Your task to perform on an android device: change the clock display to analog Image 0: 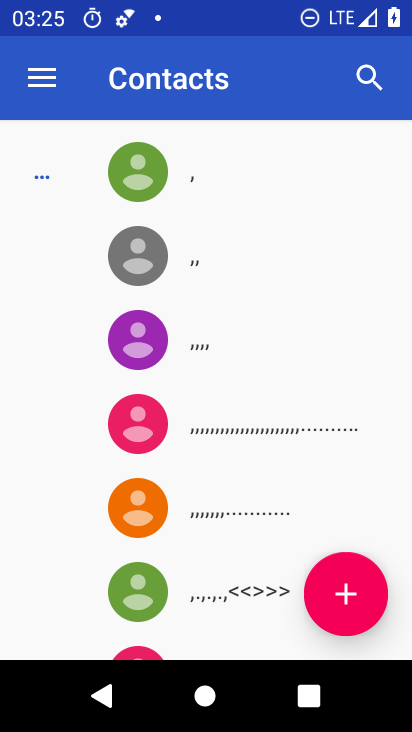
Step 0: press home button
Your task to perform on an android device: change the clock display to analog Image 1: 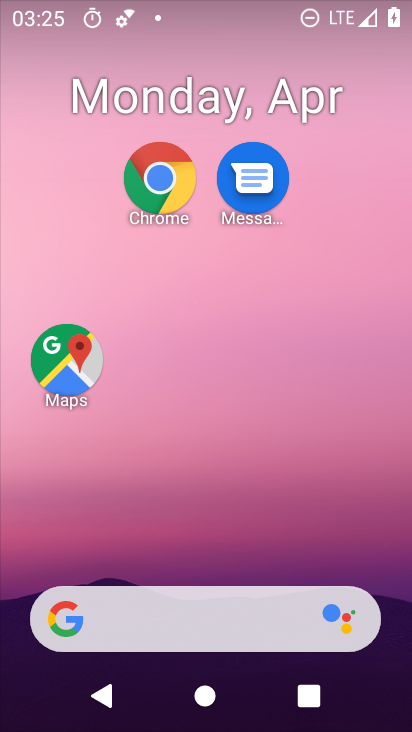
Step 1: drag from (251, 589) to (259, 41)
Your task to perform on an android device: change the clock display to analog Image 2: 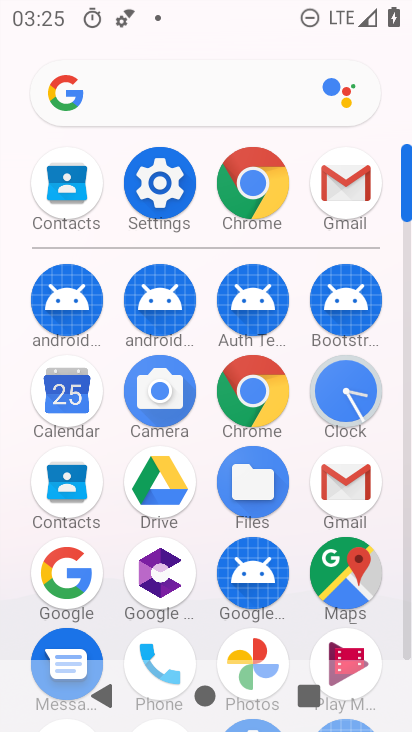
Step 2: click (347, 392)
Your task to perform on an android device: change the clock display to analog Image 3: 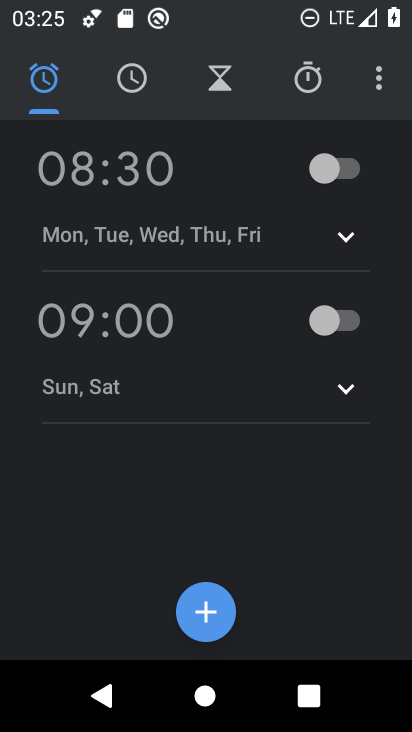
Step 3: click (370, 66)
Your task to perform on an android device: change the clock display to analog Image 4: 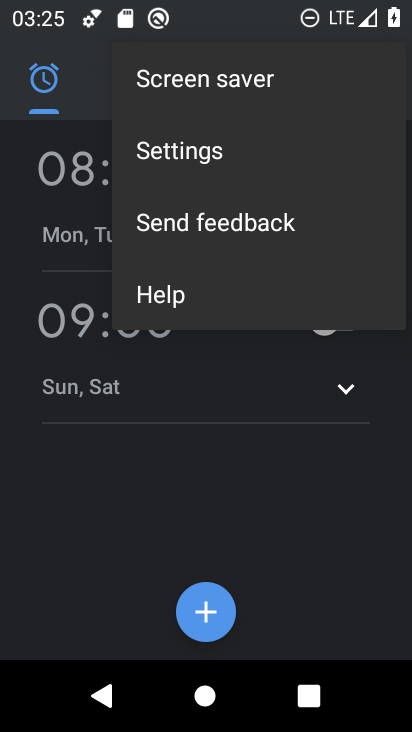
Step 4: click (229, 161)
Your task to perform on an android device: change the clock display to analog Image 5: 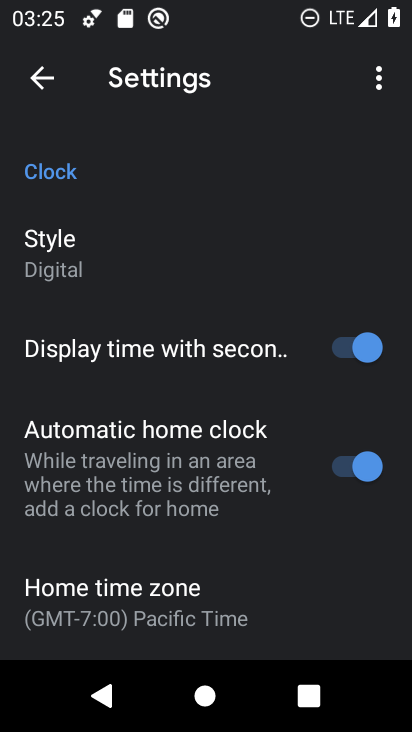
Step 5: click (92, 253)
Your task to perform on an android device: change the clock display to analog Image 6: 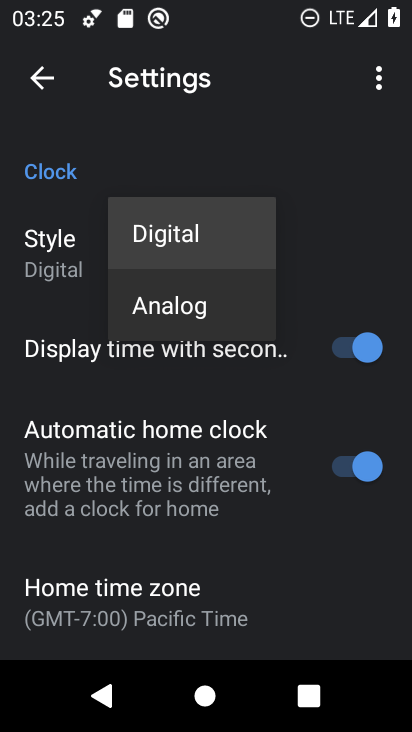
Step 6: click (119, 320)
Your task to perform on an android device: change the clock display to analog Image 7: 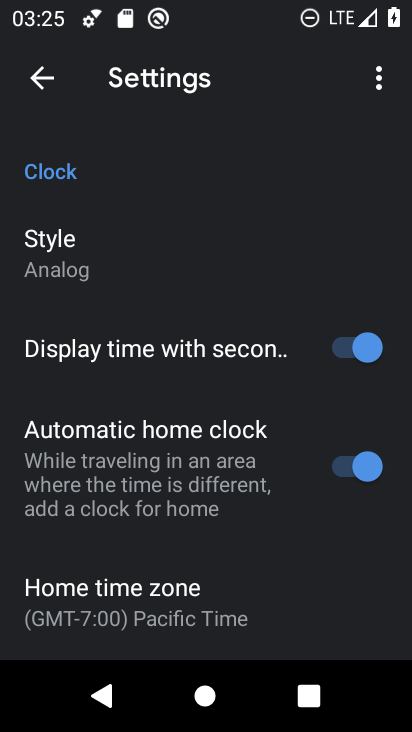
Step 7: task complete